Your task to perform on an android device: refresh tabs in the chrome app Image 0: 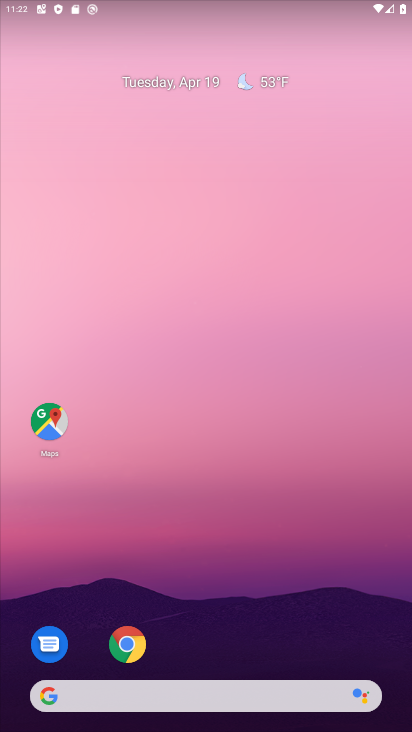
Step 0: click (133, 647)
Your task to perform on an android device: refresh tabs in the chrome app Image 1: 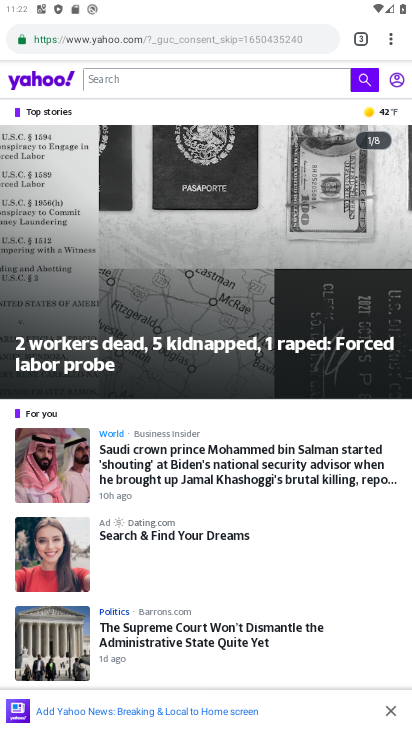
Step 1: click (391, 34)
Your task to perform on an android device: refresh tabs in the chrome app Image 2: 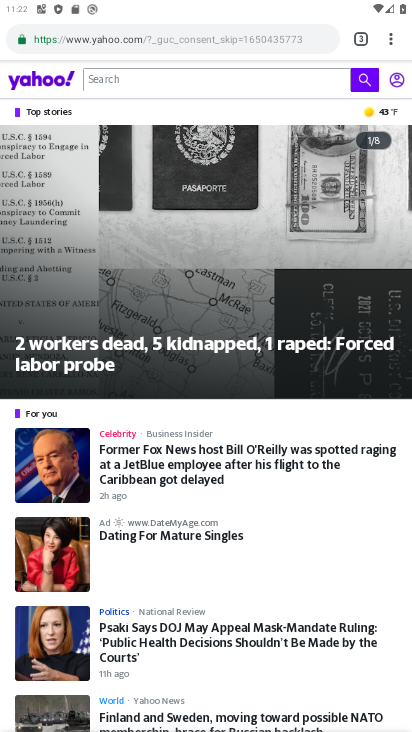
Step 2: task complete